Your task to perform on an android device: snooze an email in the gmail app Image 0: 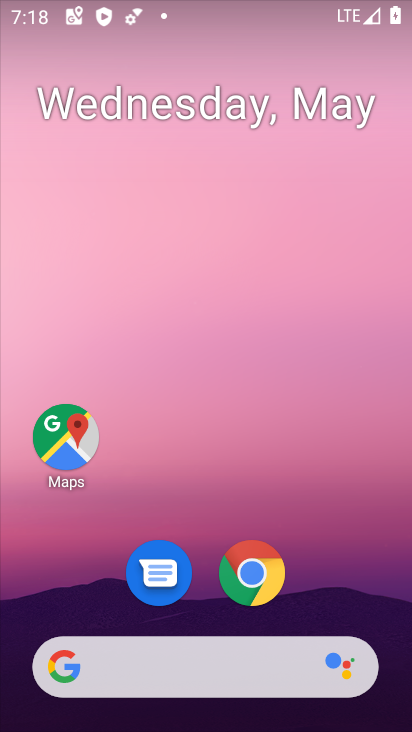
Step 0: drag from (319, 577) to (283, 183)
Your task to perform on an android device: snooze an email in the gmail app Image 1: 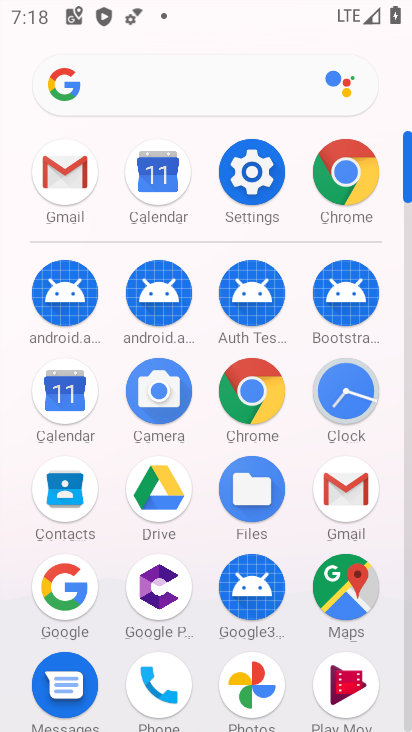
Step 1: click (68, 193)
Your task to perform on an android device: snooze an email in the gmail app Image 2: 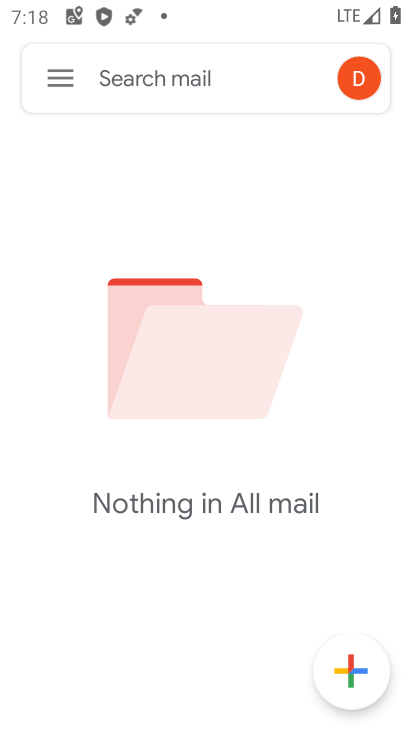
Step 2: click (58, 74)
Your task to perform on an android device: snooze an email in the gmail app Image 3: 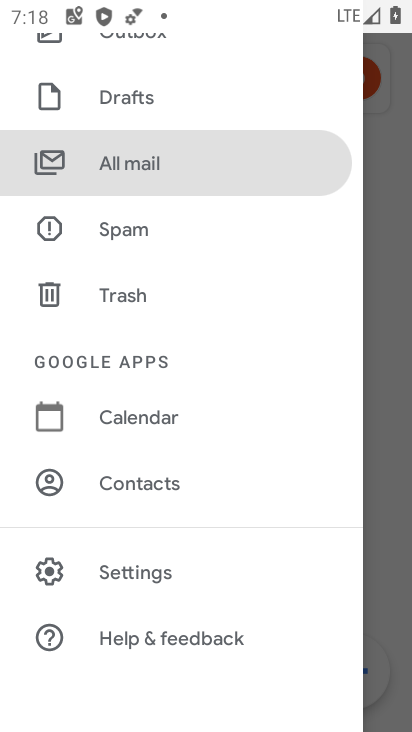
Step 3: click (134, 174)
Your task to perform on an android device: snooze an email in the gmail app Image 4: 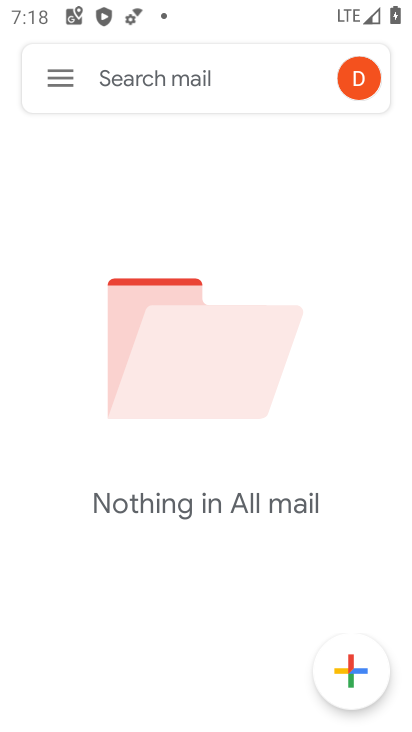
Step 4: task complete